Your task to perform on an android device: turn on bluetooth scan Image 0: 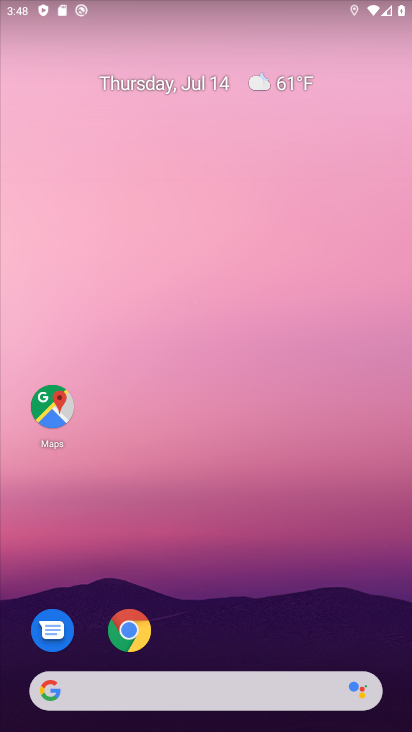
Step 0: drag from (261, 629) to (200, 90)
Your task to perform on an android device: turn on bluetooth scan Image 1: 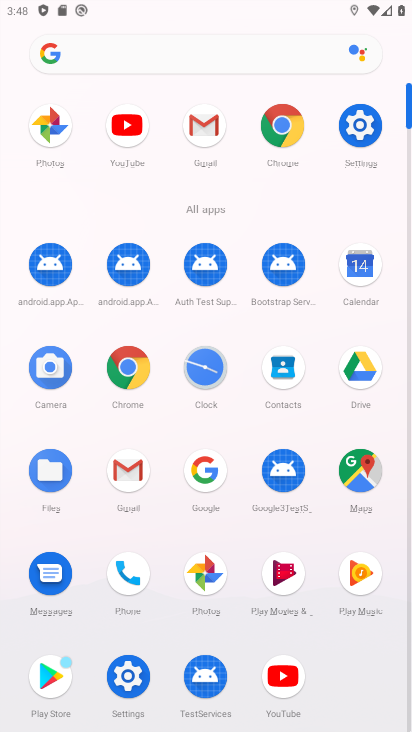
Step 1: click (367, 132)
Your task to perform on an android device: turn on bluetooth scan Image 2: 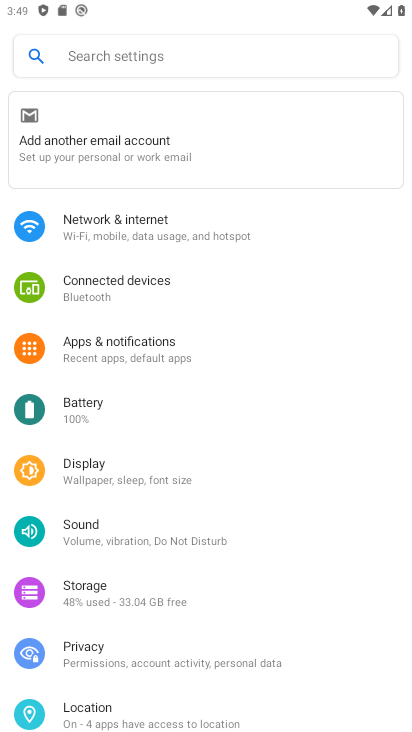
Step 2: click (110, 708)
Your task to perform on an android device: turn on bluetooth scan Image 3: 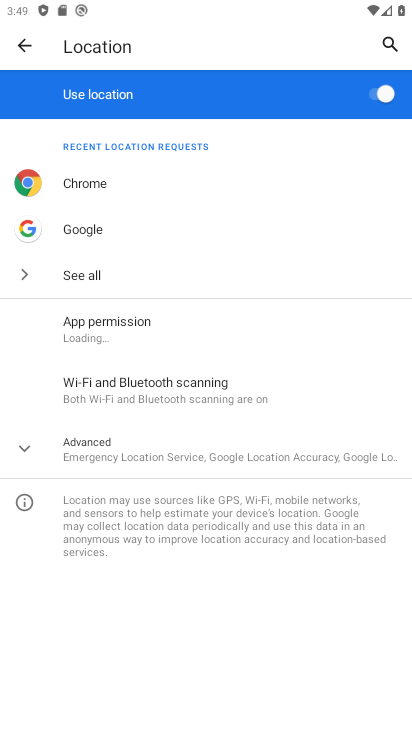
Step 3: click (294, 396)
Your task to perform on an android device: turn on bluetooth scan Image 4: 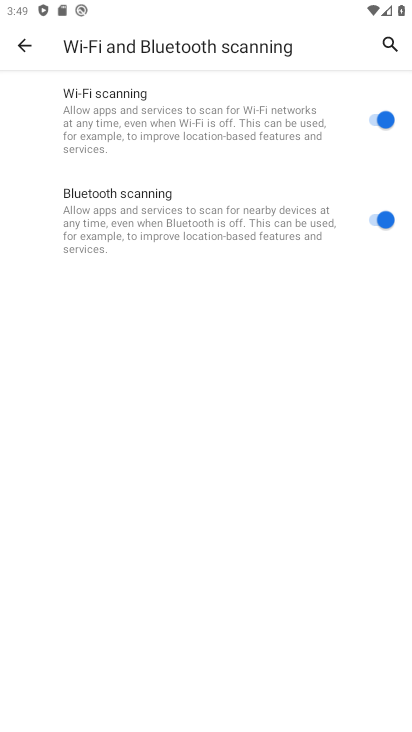
Step 4: task complete